Your task to perform on an android device: turn pop-ups on in chrome Image 0: 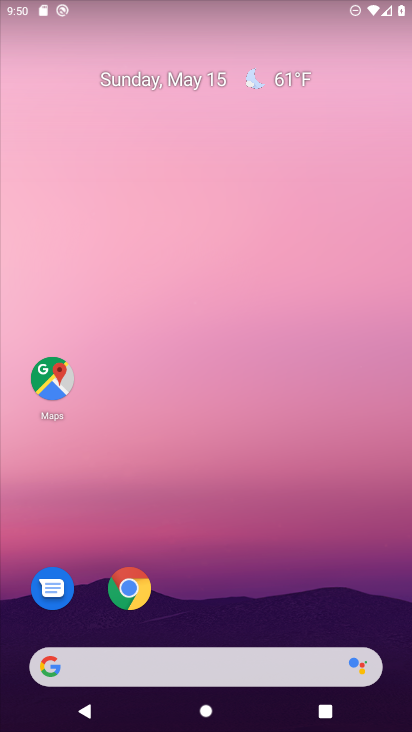
Step 0: drag from (233, 603) to (304, 0)
Your task to perform on an android device: turn pop-ups on in chrome Image 1: 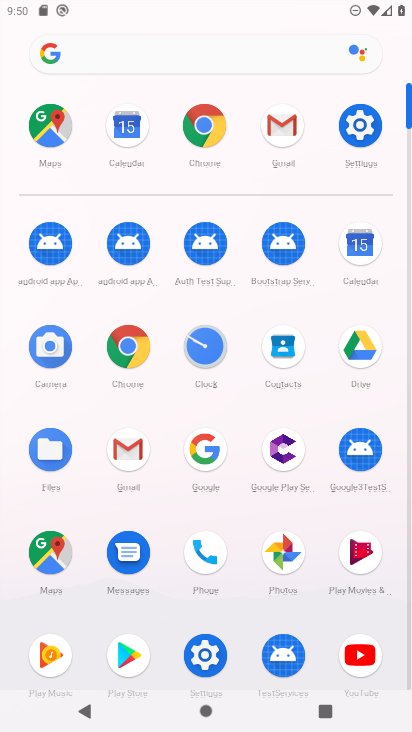
Step 1: click (124, 357)
Your task to perform on an android device: turn pop-ups on in chrome Image 2: 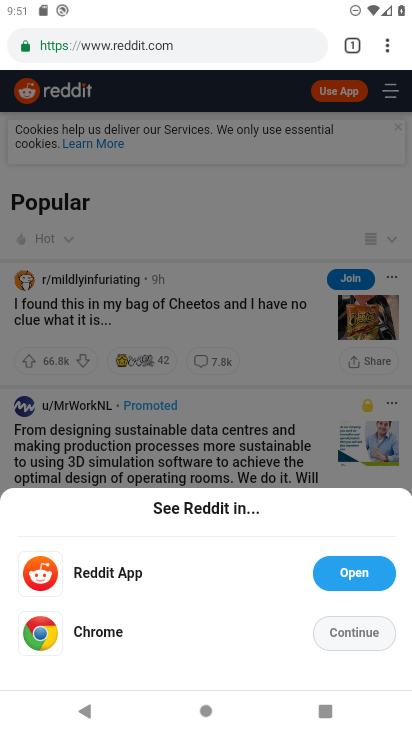
Step 2: click (376, 42)
Your task to perform on an android device: turn pop-ups on in chrome Image 3: 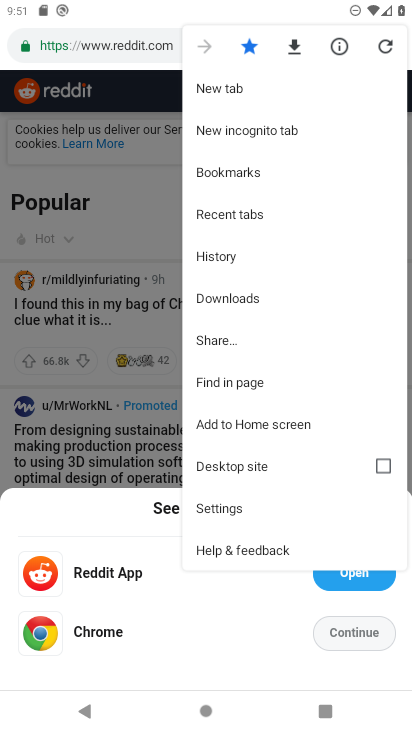
Step 3: click (246, 514)
Your task to perform on an android device: turn pop-ups on in chrome Image 4: 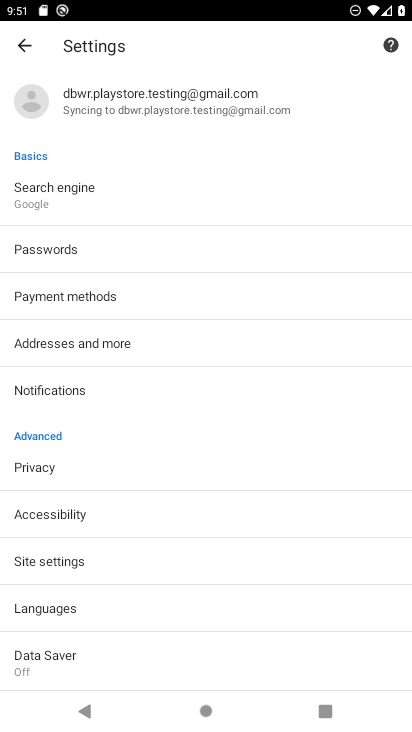
Step 4: click (50, 557)
Your task to perform on an android device: turn pop-ups on in chrome Image 5: 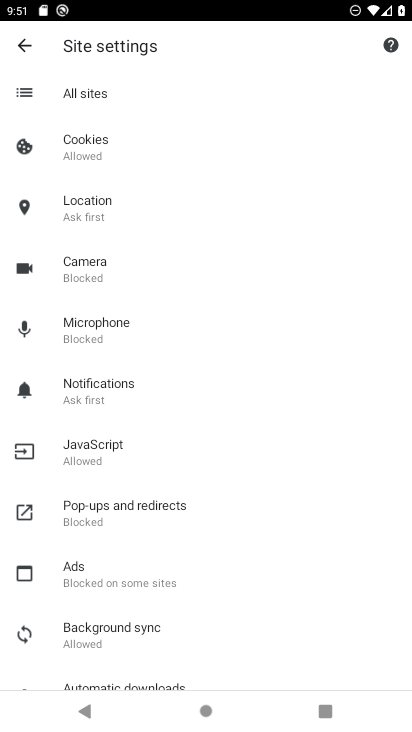
Step 5: click (122, 518)
Your task to perform on an android device: turn pop-ups on in chrome Image 6: 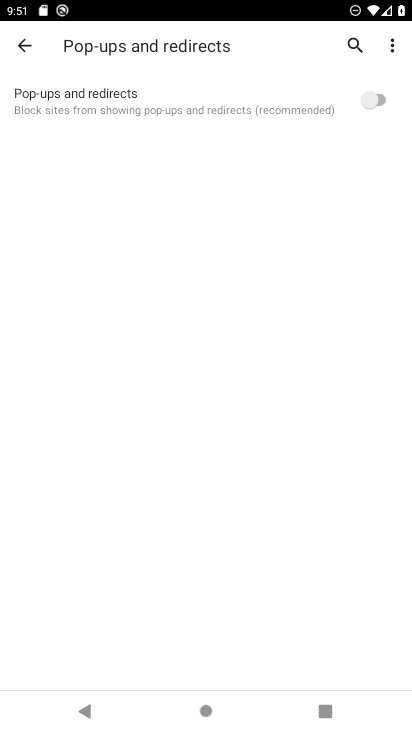
Step 6: click (383, 100)
Your task to perform on an android device: turn pop-ups on in chrome Image 7: 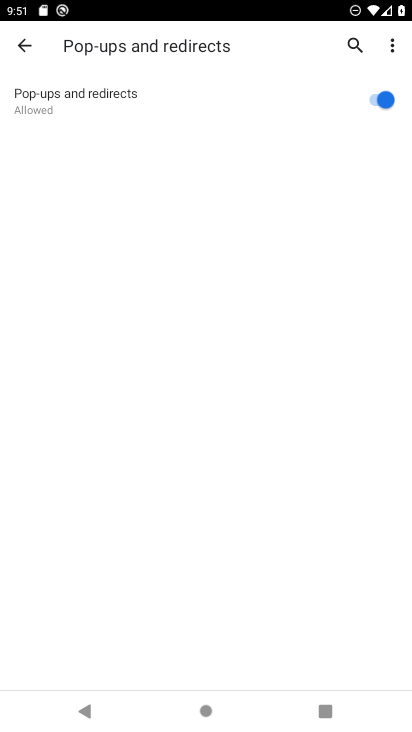
Step 7: task complete